Your task to perform on an android device: change keyboard looks Image 0: 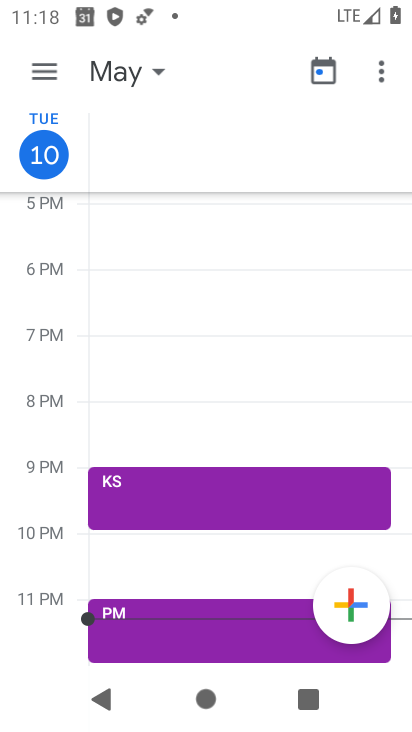
Step 0: press home button
Your task to perform on an android device: change keyboard looks Image 1: 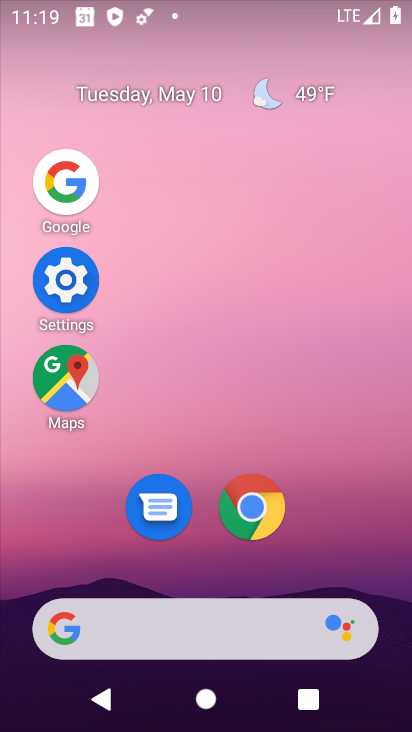
Step 1: click (68, 270)
Your task to perform on an android device: change keyboard looks Image 2: 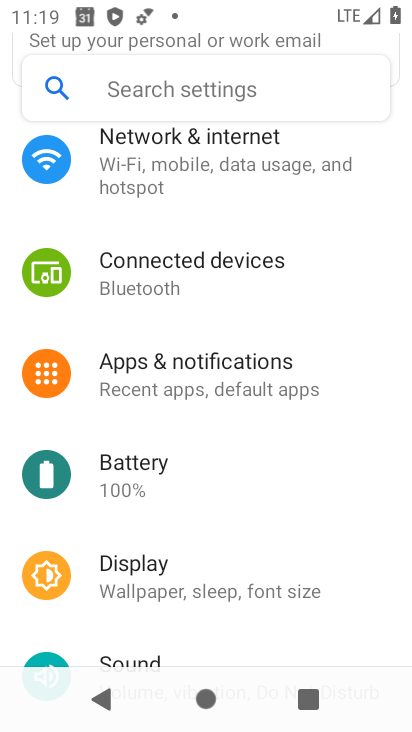
Step 2: drag from (271, 609) to (254, 178)
Your task to perform on an android device: change keyboard looks Image 3: 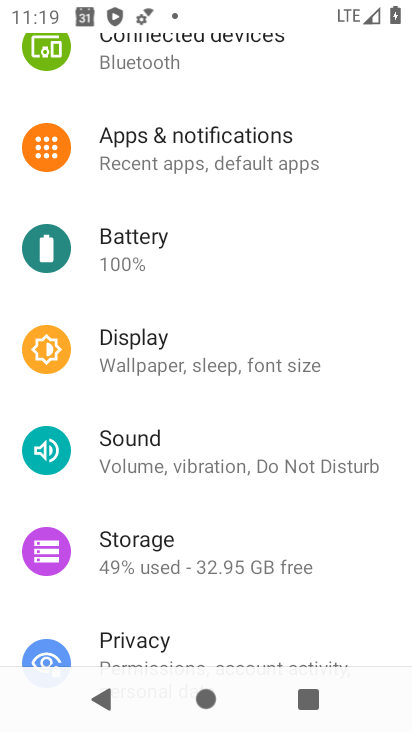
Step 3: drag from (296, 620) to (322, 228)
Your task to perform on an android device: change keyboard looks Image 4: 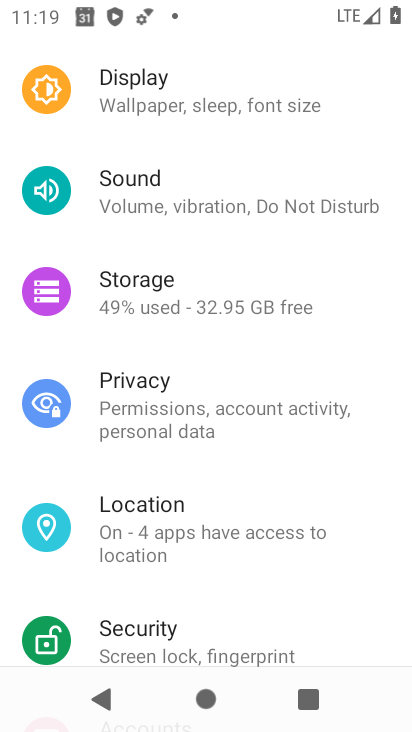
Step 4: drag from (275, 606) to (279, 170)
Your task to perform on an android device: change keyboard looks Image 5: 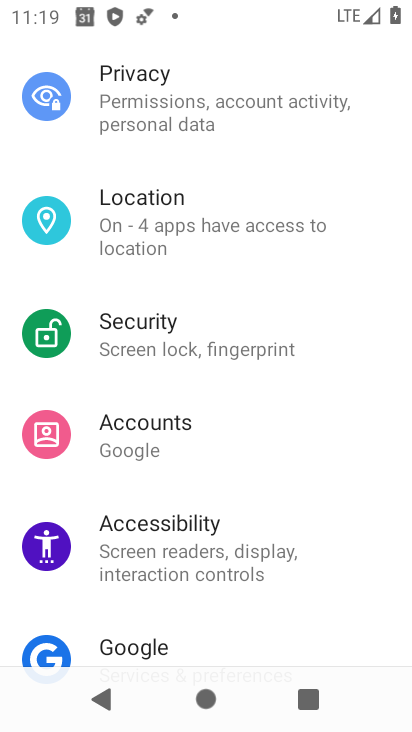
Step 5: drag from (272, 613) to (297, 179)
Your task to perform on an android device: change keyboard looks Image 6: 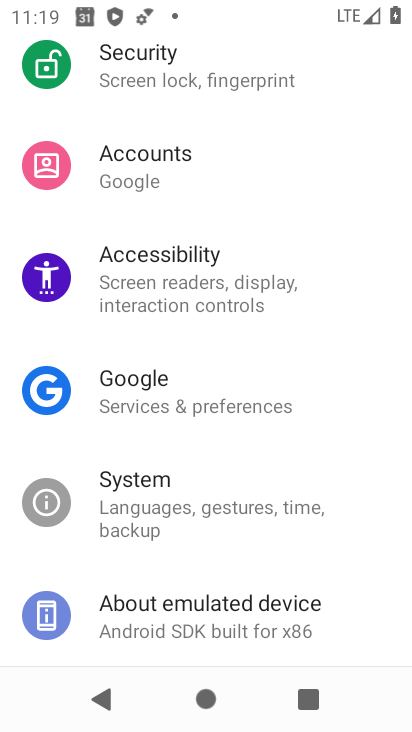
Step 6: click (231, 528)
Your task to perform on an android device: change keyboard looks Image 7: 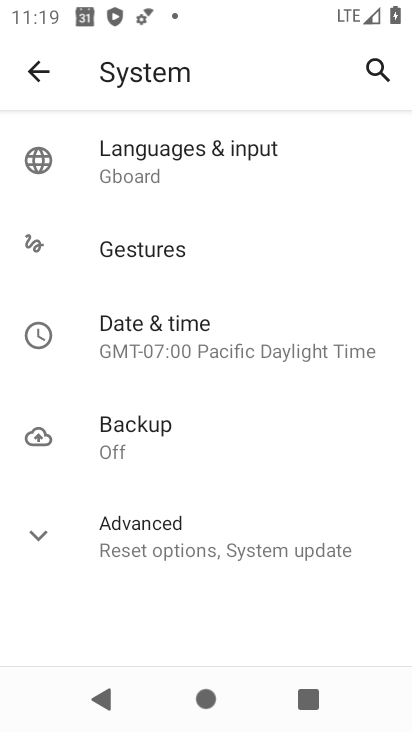
Step 7: click (215, 168)
Your task to perform on an android device: change keyboard looks Image 8: 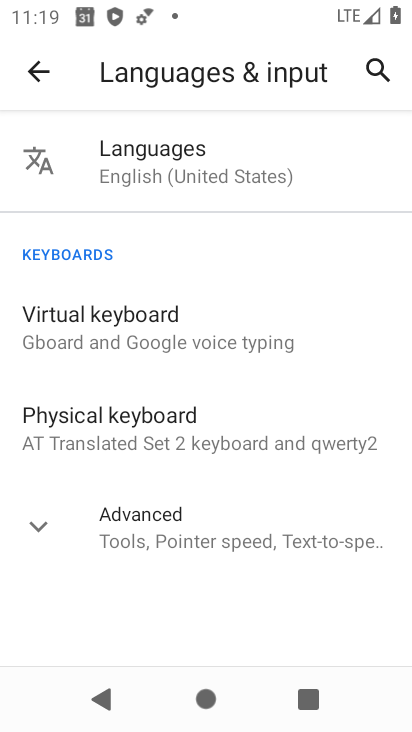
Step 8: click (202, 312)
Your task to perform on an android device: change keyboard looks Image 9: 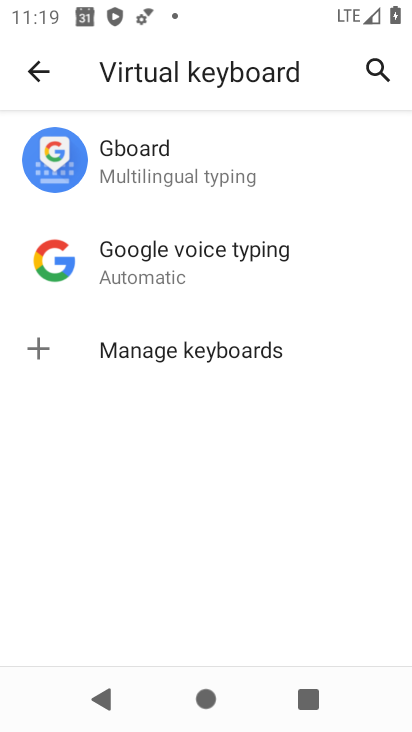
Step 9: click (199, 187)
Your task to perform on an android device: change keyboard looks Image 10: 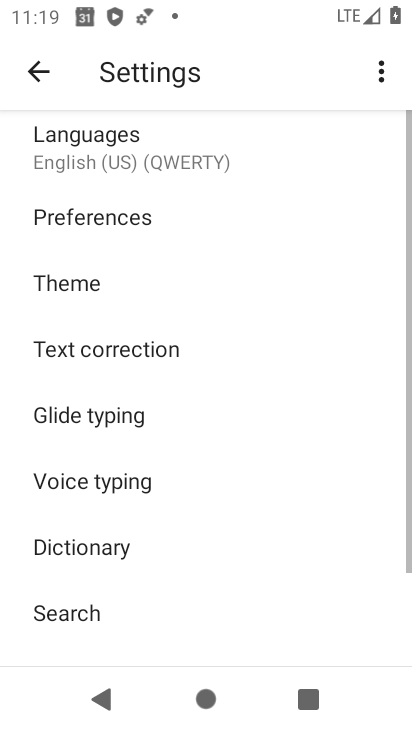
Step 10: click (123, 297)
Your task to perform on an android device: change keyboard looks Image 11: 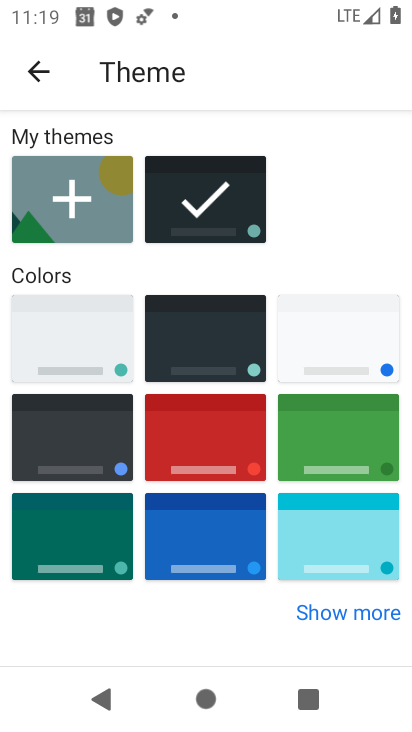
Step 11: click (124, 371)
Your task to perform on an android device: change keyboard looks Image 12: 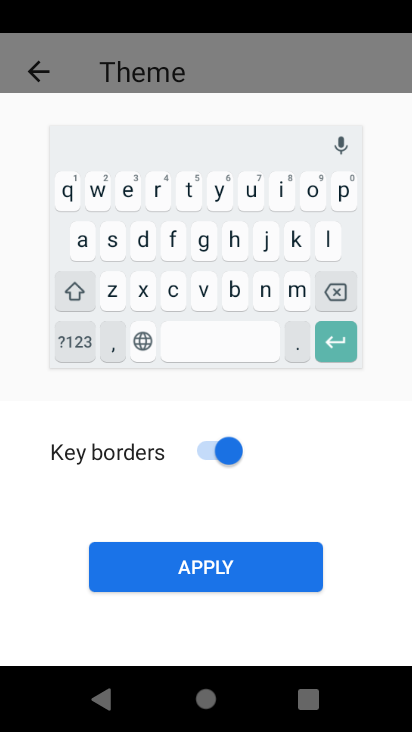
Step 12: click (248, 579)
Your task to perform on an android device: change keyboard looks Image 13: 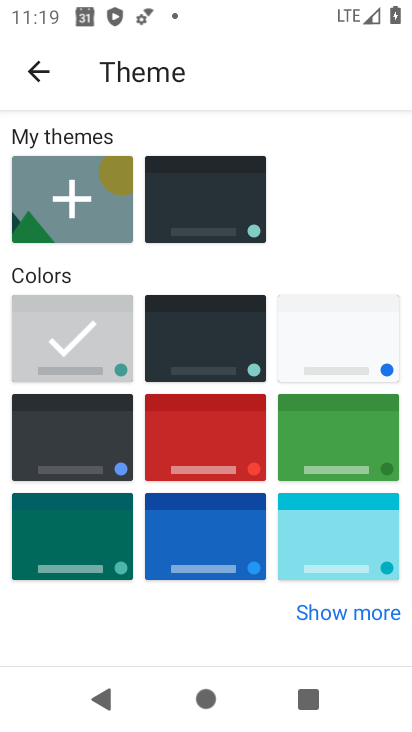
Step 13: task complete